Your task to perform on an android device: Open internet settings Image 0: 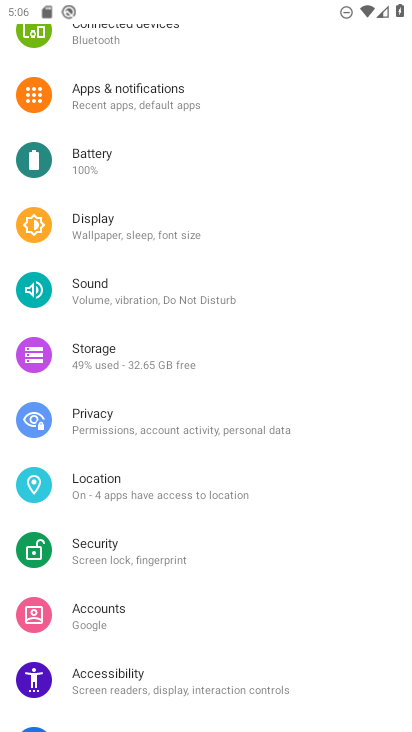
Step 0: drag from (134, 103) to (189, 468)
Your task to perform on an android device: Open internet settings Image 1: 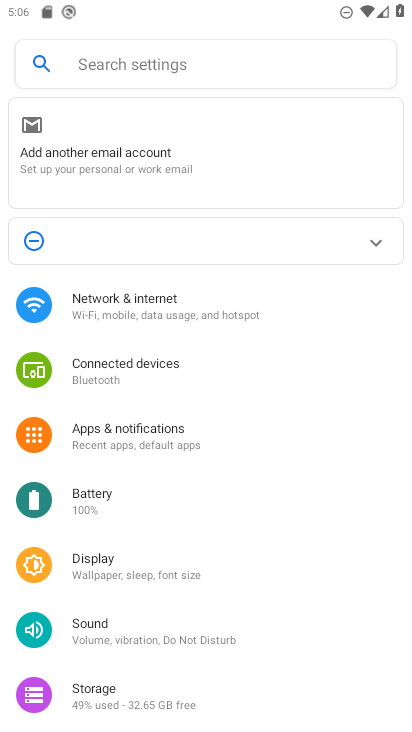
Step 1: click (147, 307)
Your task to perform on an android device: Open internet settings Image 2: 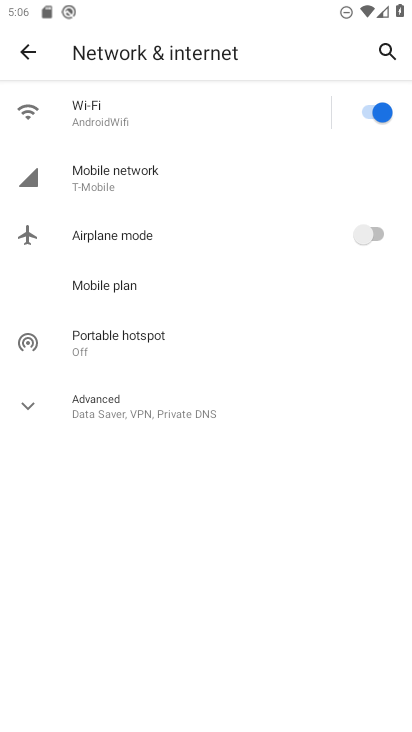
Step 2: click (136, 170)
Your task to perform on an android device: Open internet settings Image 3: 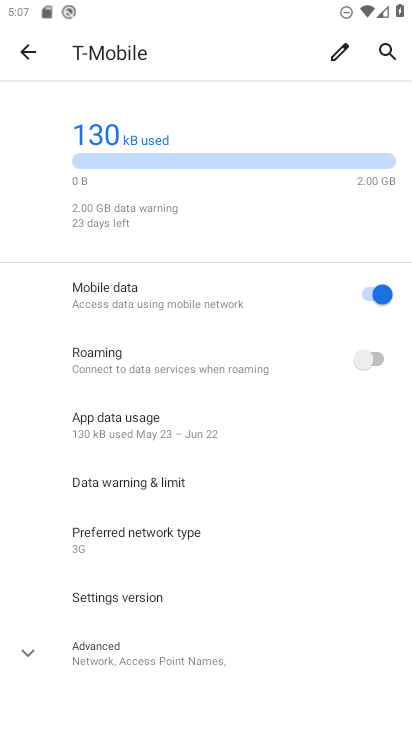
Step 3: task complete